Your task to perform on an android device: Look up the best rated book on Goodreads Image 0: 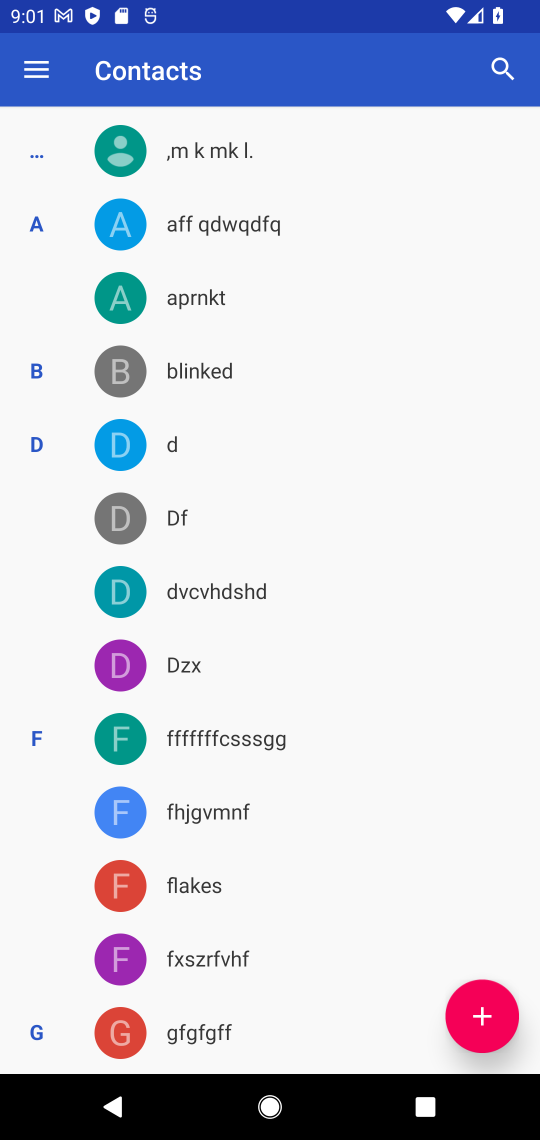
Step 0: press home button
Your task to perform on an android device: Look up the best rated book on Goodreads Image 1: 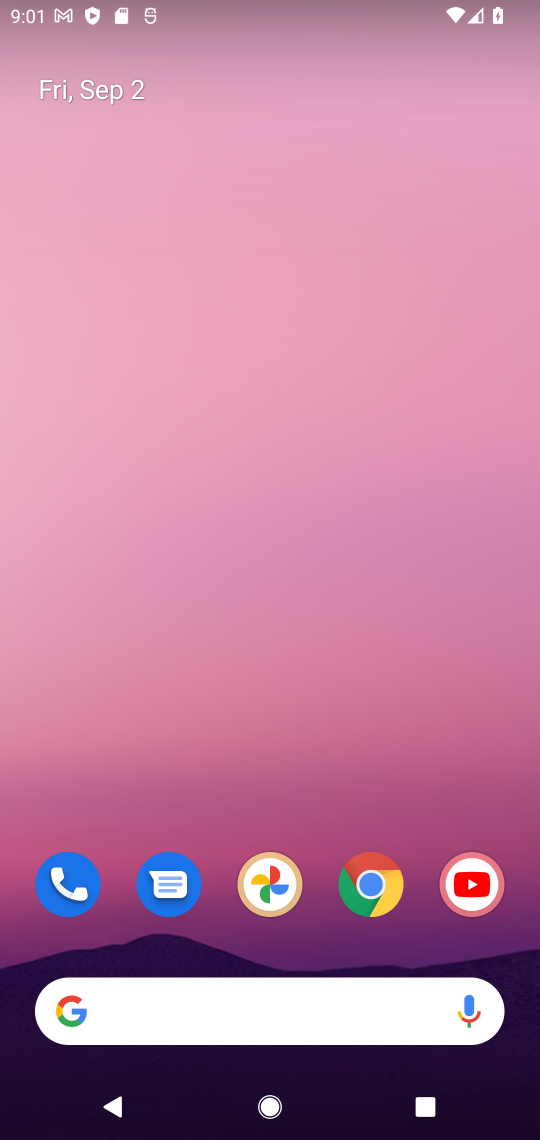
Step 1: click (373, 885)
Your task to perform on an android device: Look up the best rated book on Goodreads Image 2: 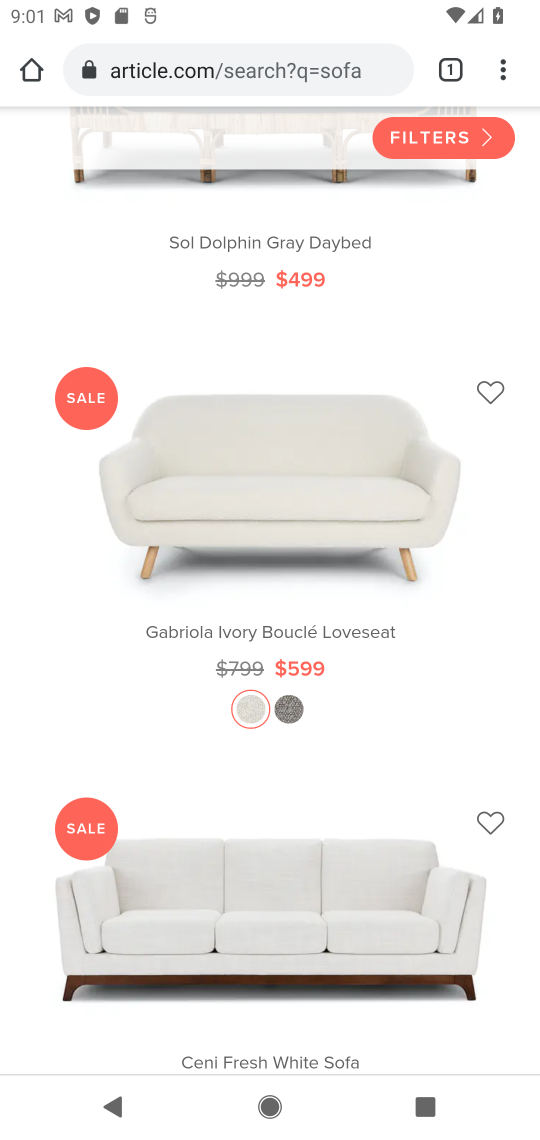
Step 2: click (391, 77)
Your task to perform on an android device: Look up the best rated book on Goodreads Image 3: 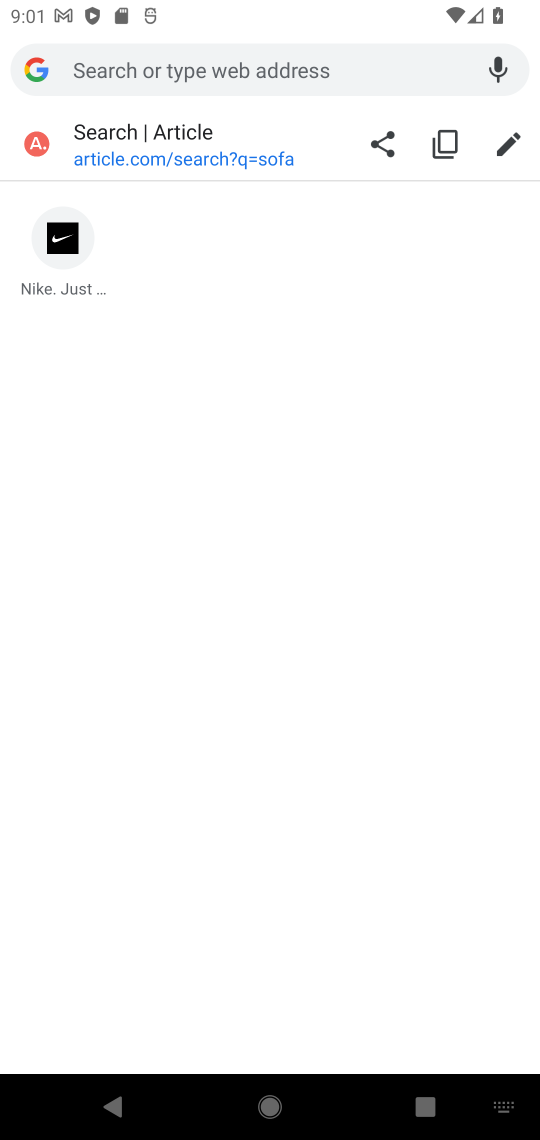
Step 3: type "goodreads"
Your task to perform on an android device: Look up the best rated book on Goodreads Image 4: 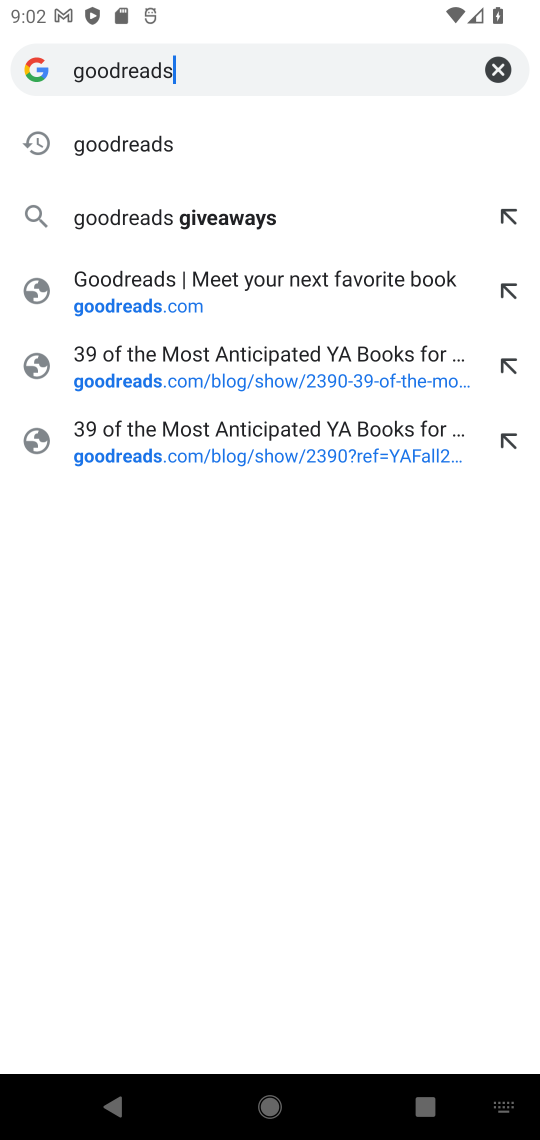
Step 4: click (126, 150)
Your task to perform on an android device: Look up the best rated book on Goodreads Image 5: 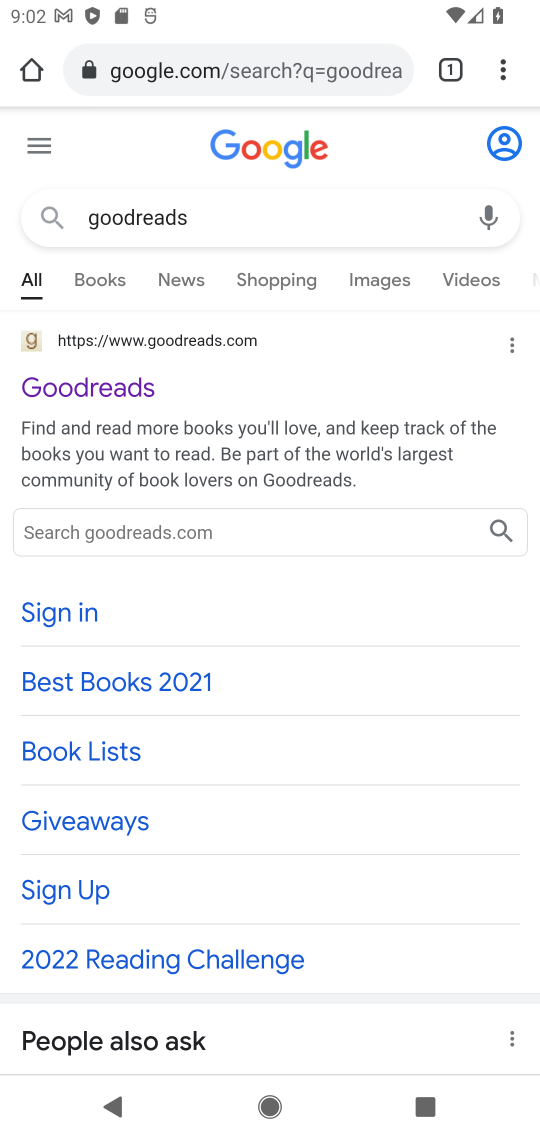
Step 5: click (56, 392)
Your task to perform on an android device: Look up the best rated book on Goodreads Image 6: 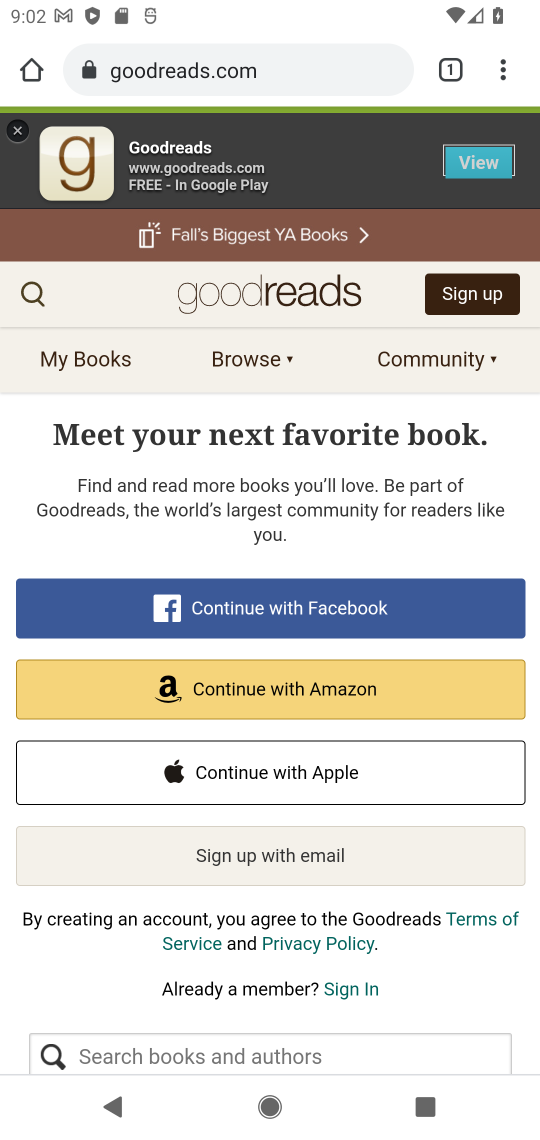
Step 6: click (227, 286)
Your task to perform on an android device: Look up the best rated book on Goodreads Image 7: 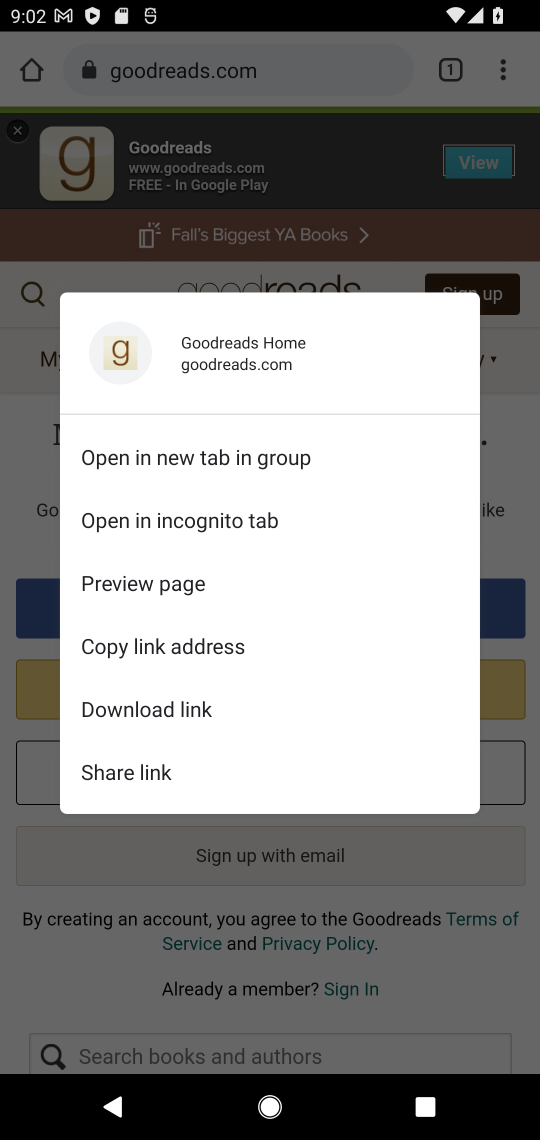
Step 7: click (38, 293)
Your task to perform on an android device: Look up the best rated book on Goodreads Image 8: 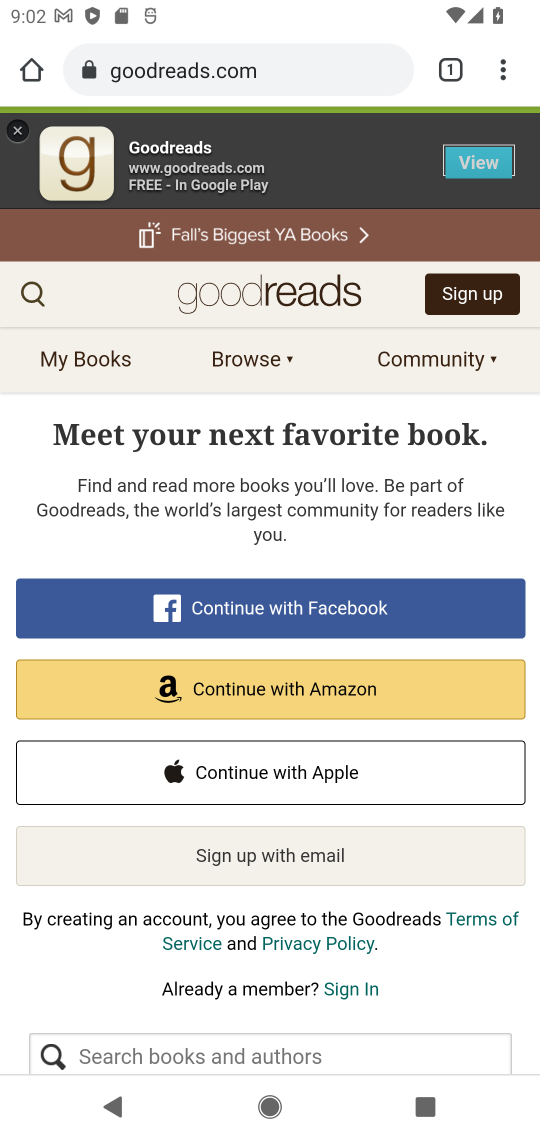
Step 8: click (34, 296)
Your task to perform on an android device: Look up the best rated book on Goodreads Image 9: 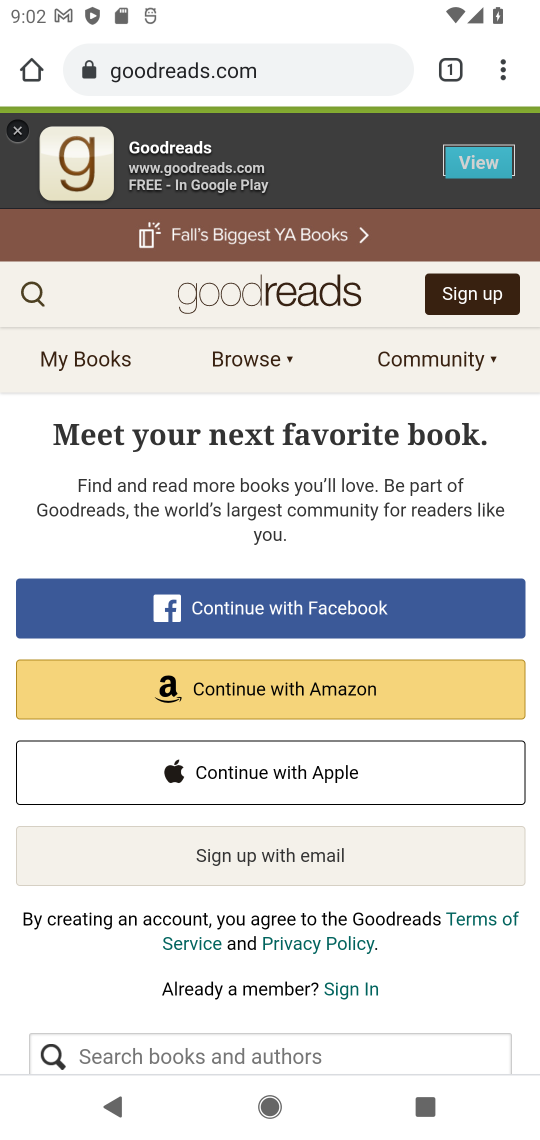
Step 9: click (77, 294)
Your task to perform on an android device: Look up the best rated book on Goodreads Image 10: 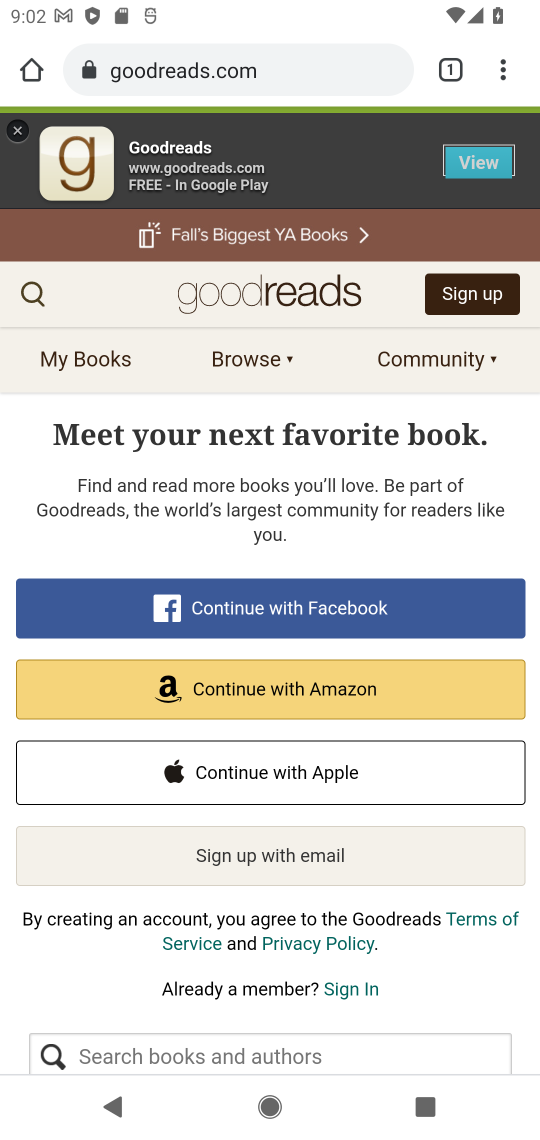
Step 10: click (65, 278)
Your task to perform on an android device: Look up the best rated book on Goodreads Image 11: 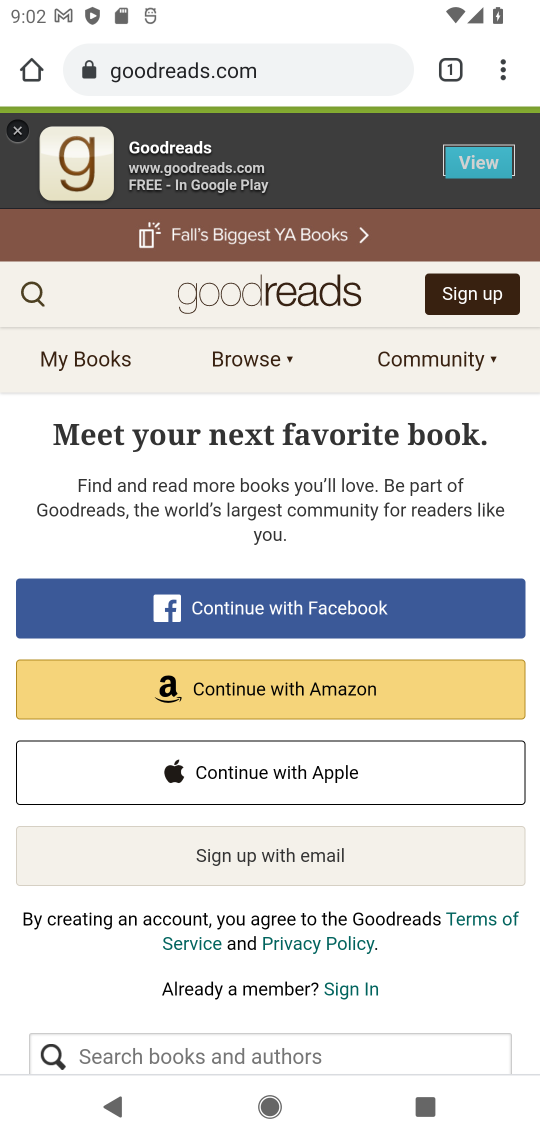
Step 11: click (30, 298)
Your task to perform on an android device: Look up the best rated book on Goodreads Image 12: 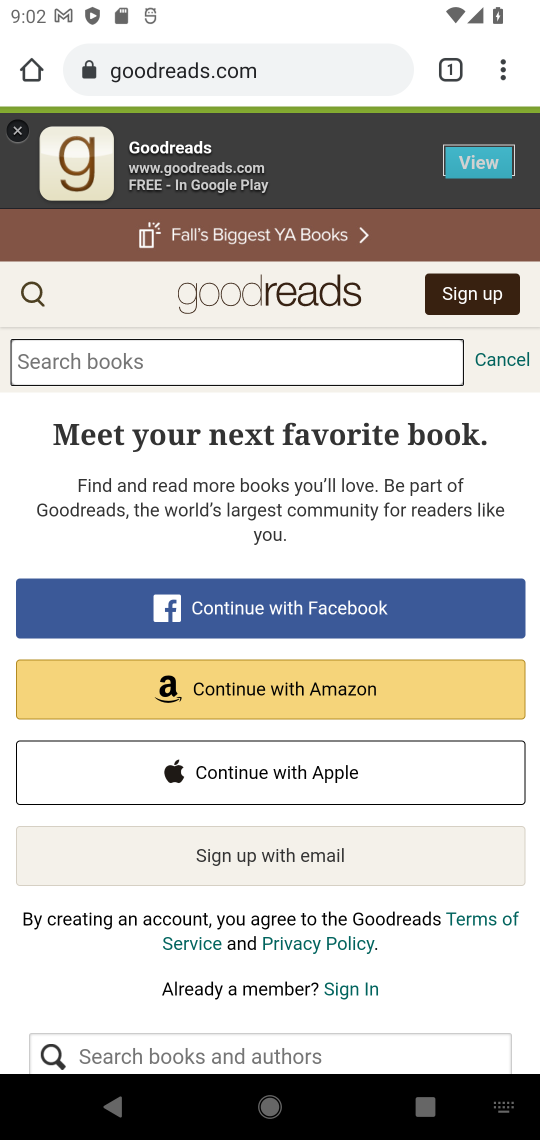
Step 12: click (99, 383)
Your task to perform on an android device: Look up the best rated book on Goodreads Image 13: 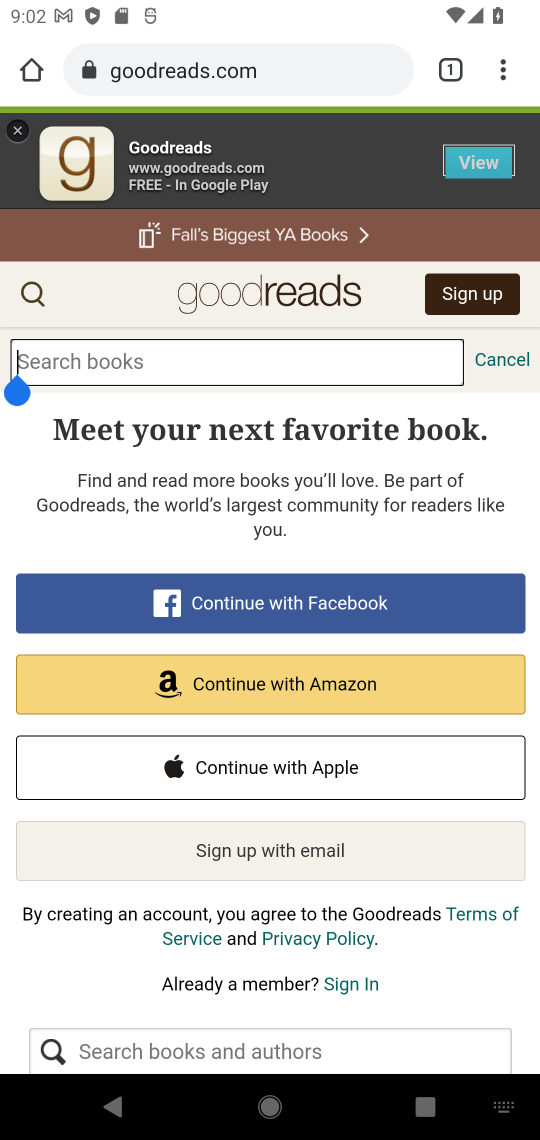
Step 13: type "best rated book"
Your task to perform on an android device: Look up the best rated book on Goodreads Image 14: 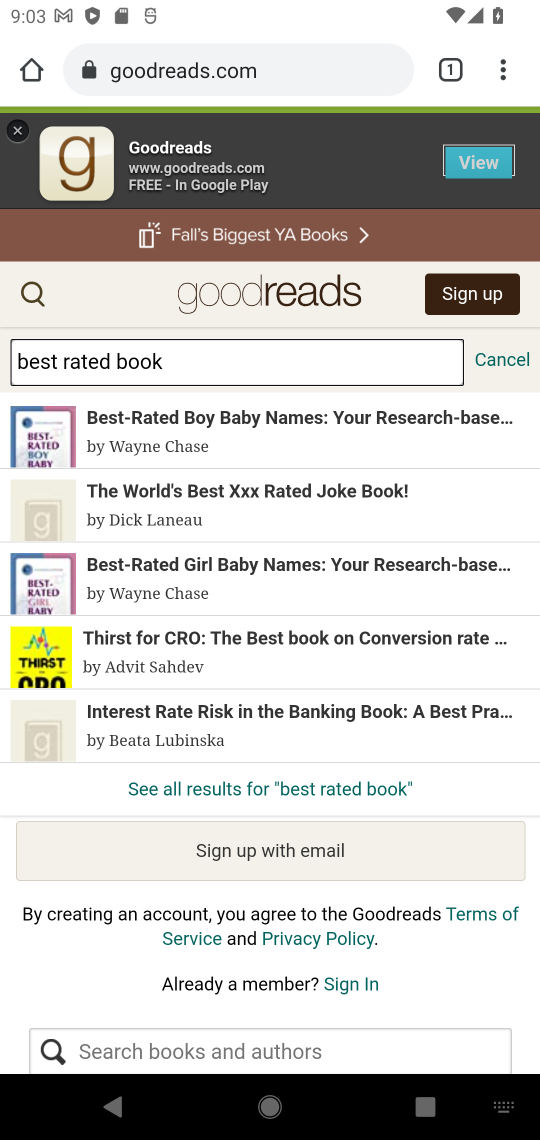
Step 14: drag from (216, 483) to (224, 392)
Your task to perform on an android device: Look up the best rated book on Goodreads Image 15: 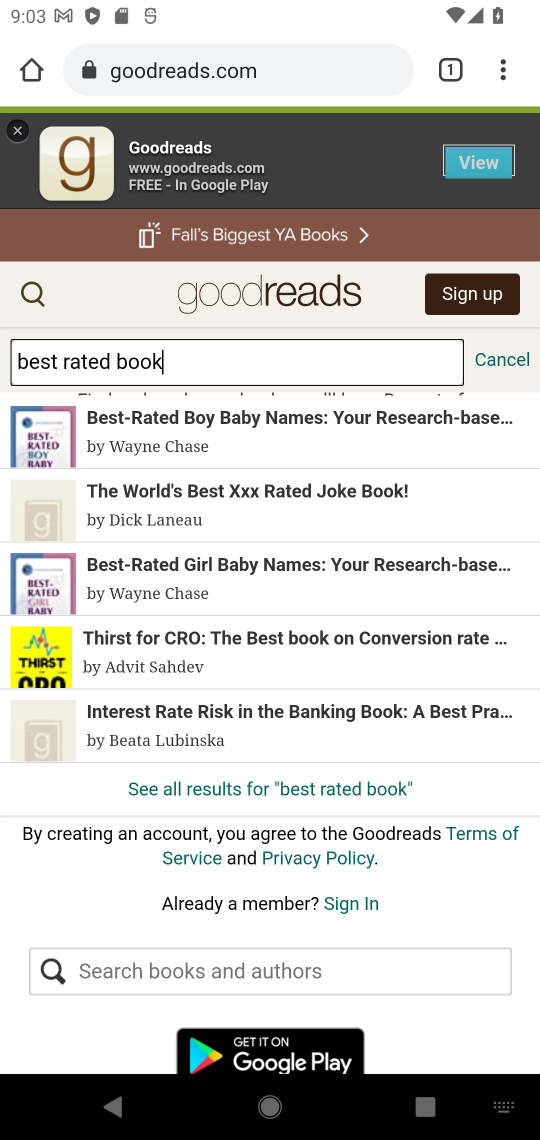
Step 15: click (307, 792)
Your task to perform on an android device: Look up the best rated book on Goodreads Image 16: 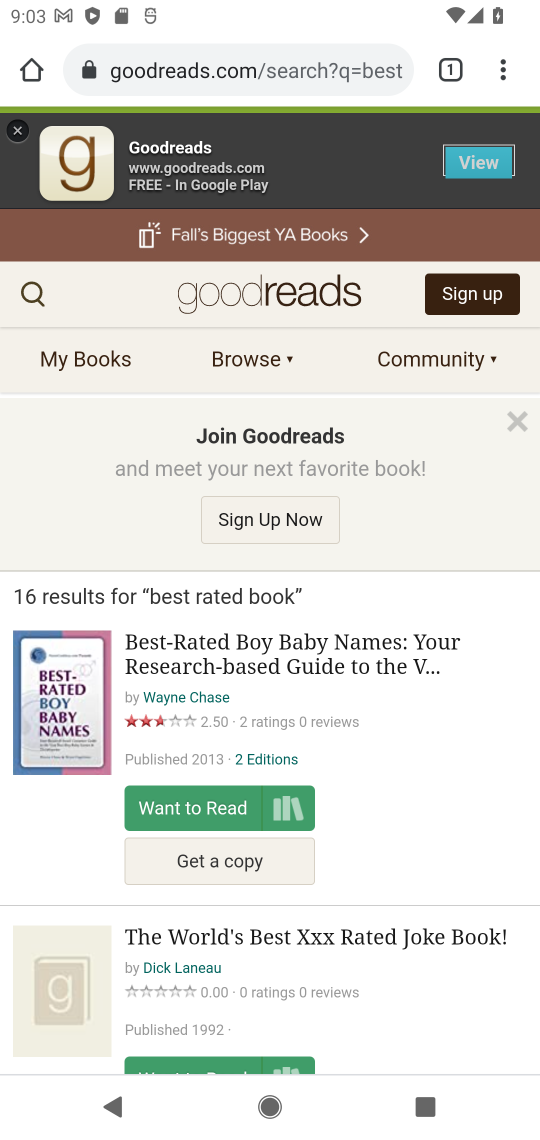
Step 16: task complete